Your task to perform on an android device: toggle pop-ups in chrome Image 0: 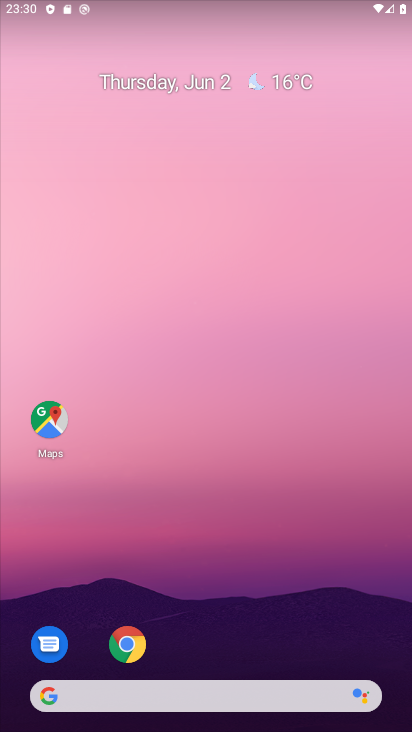
Step 0: click (126, 643)
Your task to perform on an android device: toggle pop-ups in chrome Image 1: 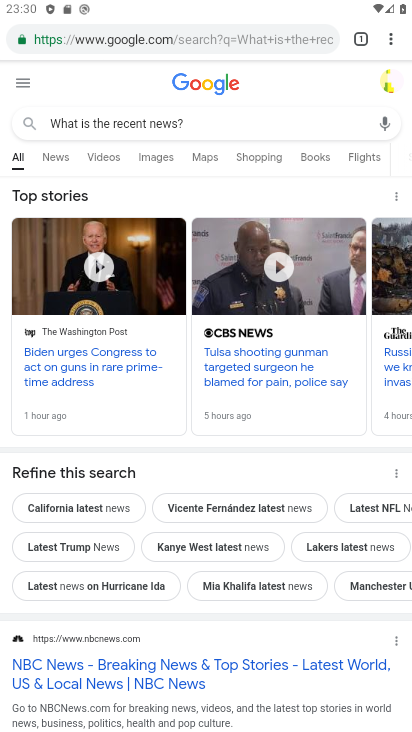
Step 1: click (394, 40)
Your task to perform on an android device: toggle pop-ups in chrome Image 2: 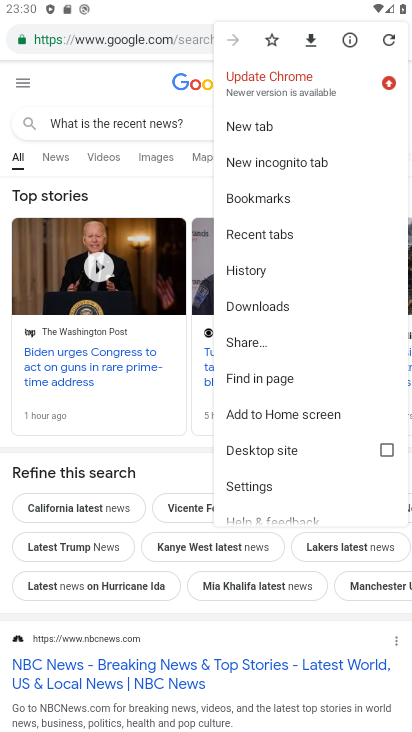
Step 2: click (247, 273)
Your task to perform on an android device: toggle pop-ups in chrome Image 3: 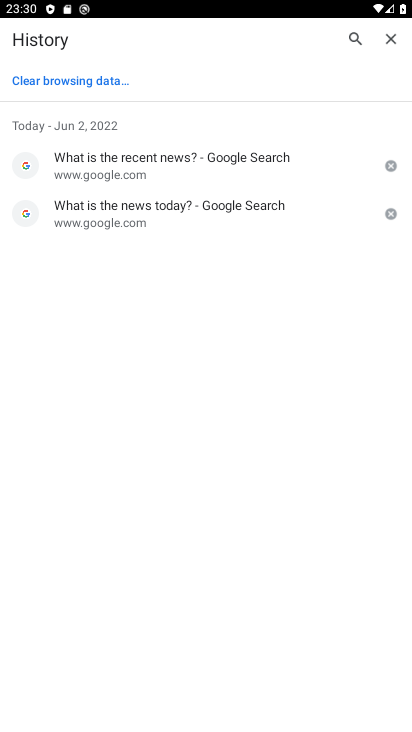
Step 3: click (391, 41)
Your task to perform on an android device: toggle pop-ups in chrome Image 4: 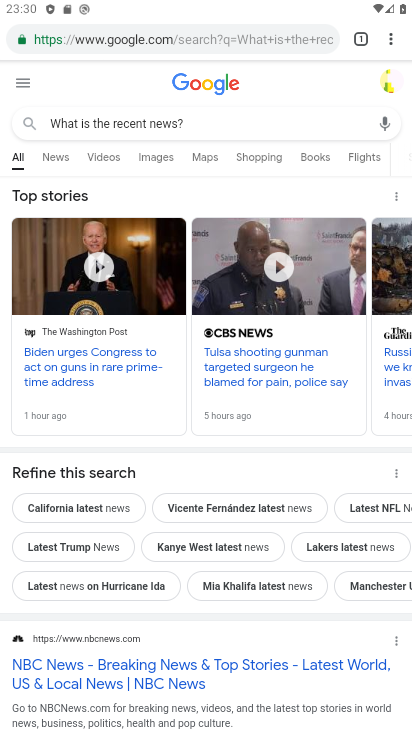
Step 4: click (387, 40)
Your task to perform on an android device: toggle pop-ups in chrome Image 5: 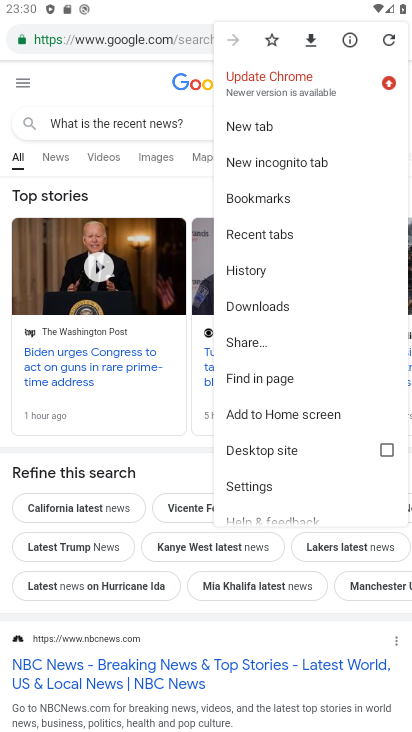
Step 5: click (252, 492)
Your task to perform on an android device: toggle pop-ups in chrome Image 6: 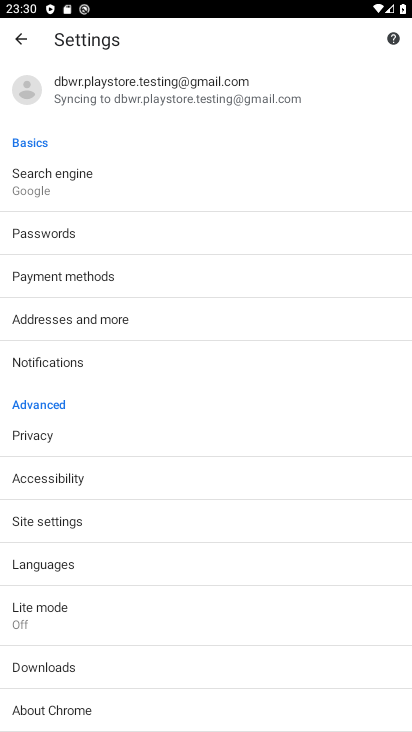
Step 6: click (74, 515)
Your task to perform on an android device: toggle pop-ups in chrome Image 7: 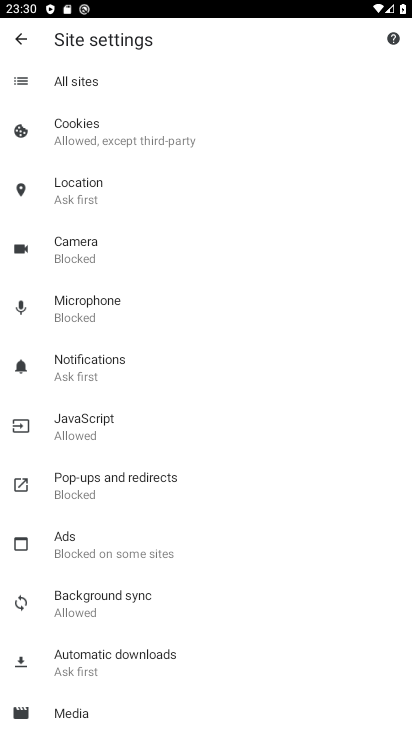
Step 7: click (90, 497)
Your task to perform on an android device: toggle pop-ups in chrome Image 8: 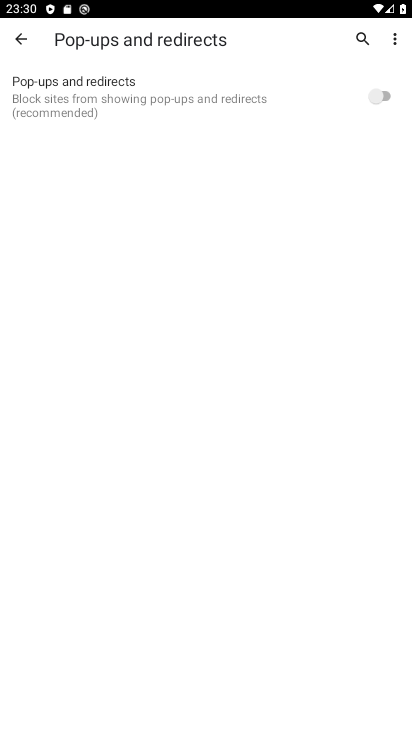
Step 8: click (385, 96)
Your task to perform on an android device: toggle pop-ups in chrome Image 9: 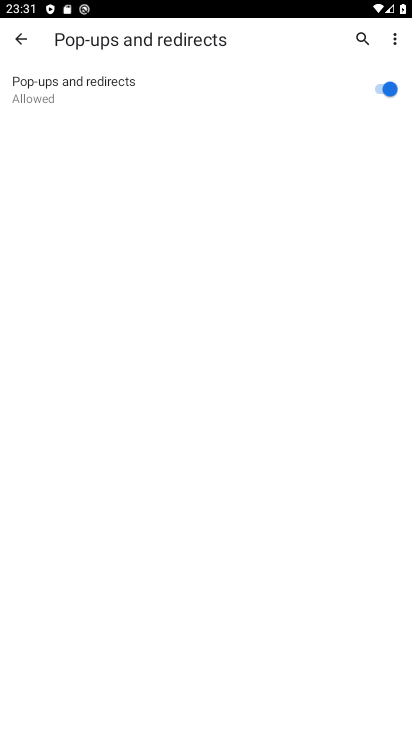
Step 9: task complete